Your task to perform on an android device: Go to ESPN.com Image 0: 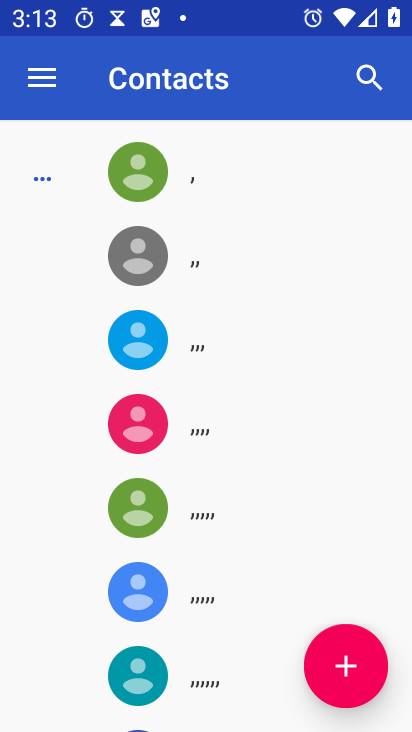
Step 0: press back button
Your task to perform on an android device: Go to ESPN.com Image 1: 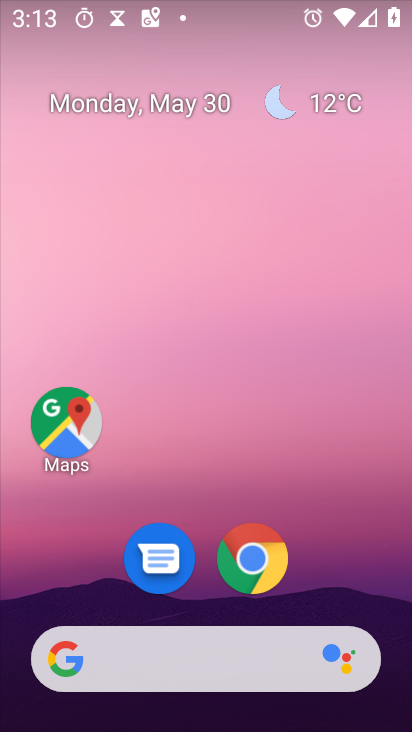
Step 1: click (233, 550)
Your task to perform on an android device: Go to ESPN.com Image 2: 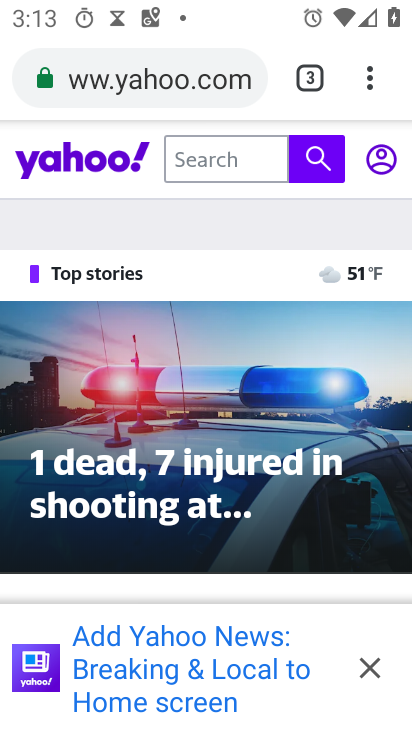
Step 2: click (299, 72)
Your task to perform on an android device: Go to ESPN.com Image 3: 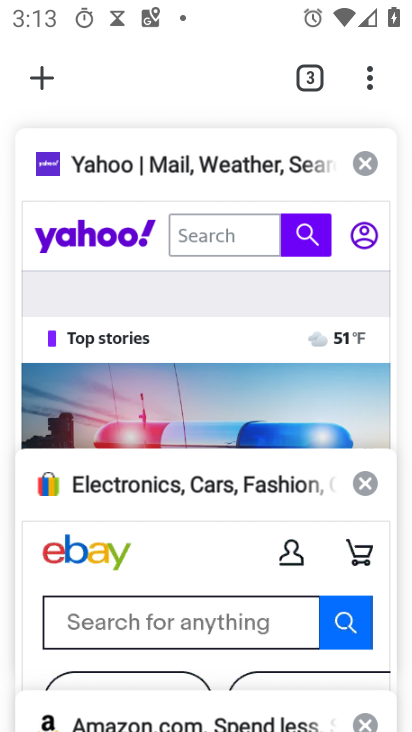
Step 3: click (43, 71)
Your task to perform on an android device: Go to ESPN.com Image 4: 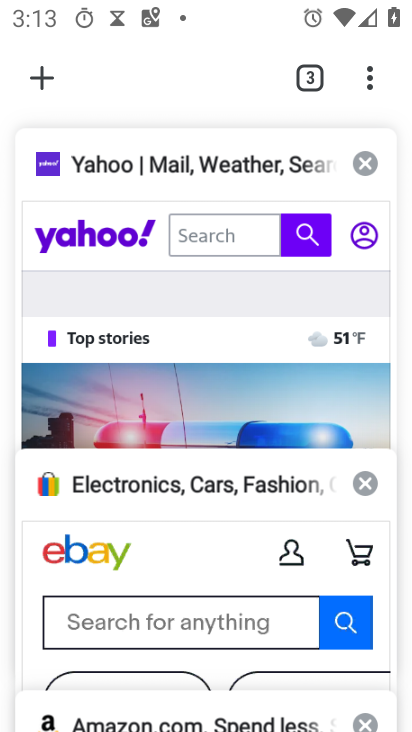
Step 4: click (41, 68)
Your task to perform on an android device: Go to ESPN.com Image 5: 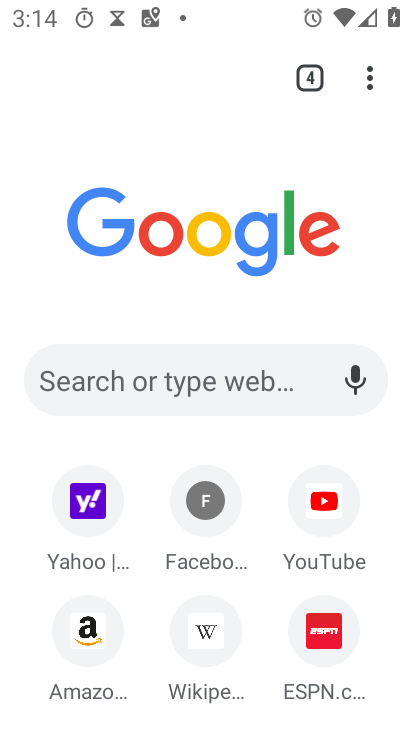
Step 5: click (321, 648)
Your task to perform on an android device: Go to ESPN.com Image 6: 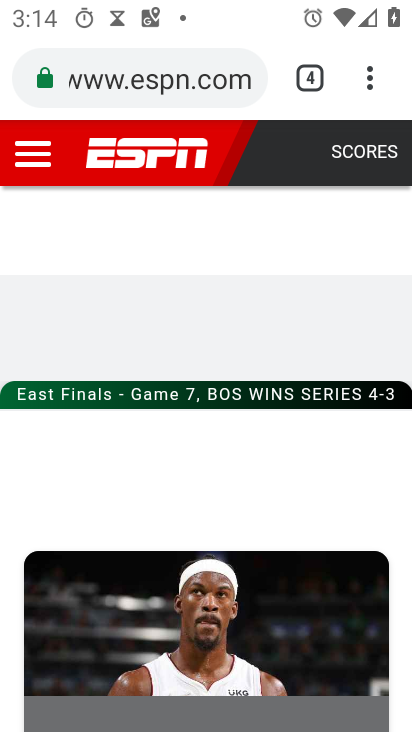
Step 6: task complete